Your task to perform on an android device: make emails show in primary in the gmail app Image 0: 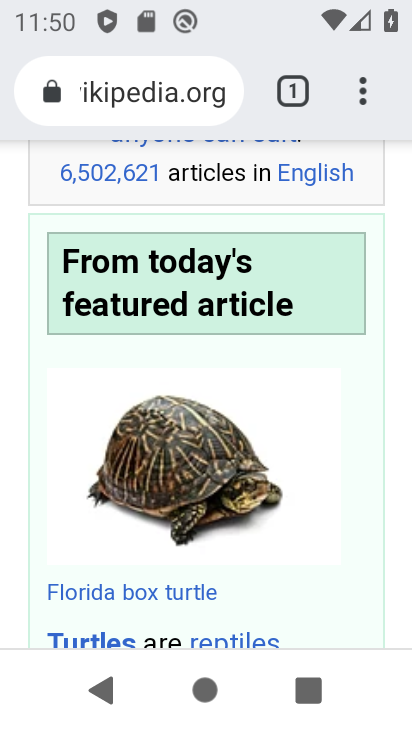
Step 0: press home button
Your task to perform on an android device: make emails show in primary in the gmail app Image 1: 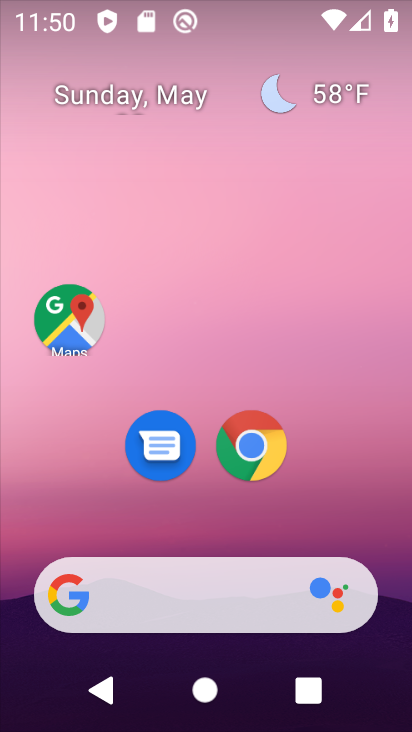
Step 1: drag from (191, 531) to (214, 92)
Your task to perform on an android device: make emails show in primary in the gmail app Image 2: 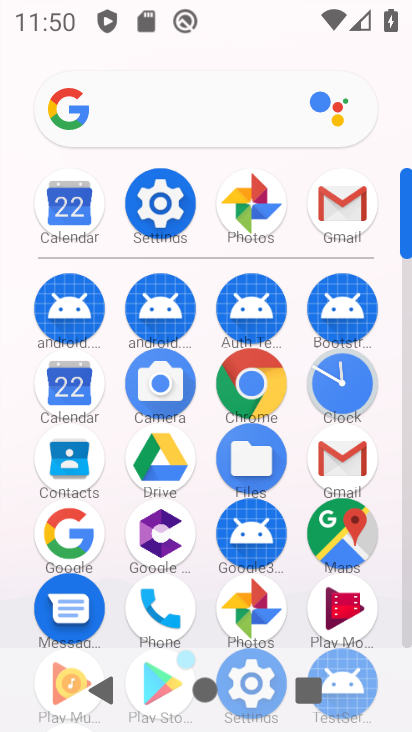
Step 2: click (346, 457)
Your task to perform on an android device: make emails show in primary in the gmail app Image 3: 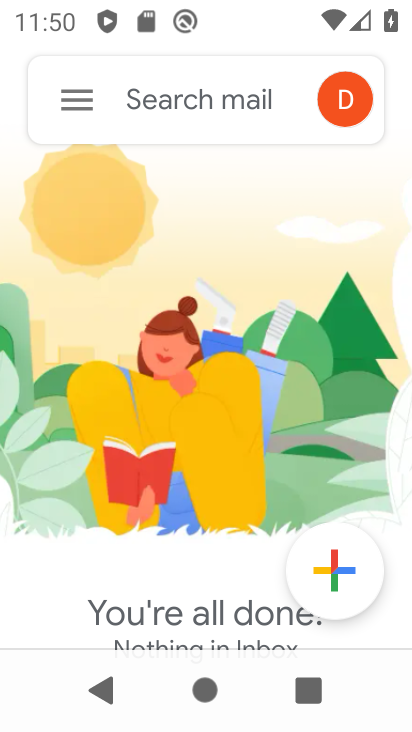
Step 3: click (76, 97)
Your task to perform on an android device: make emails show in primary in the gmail app Image 4: 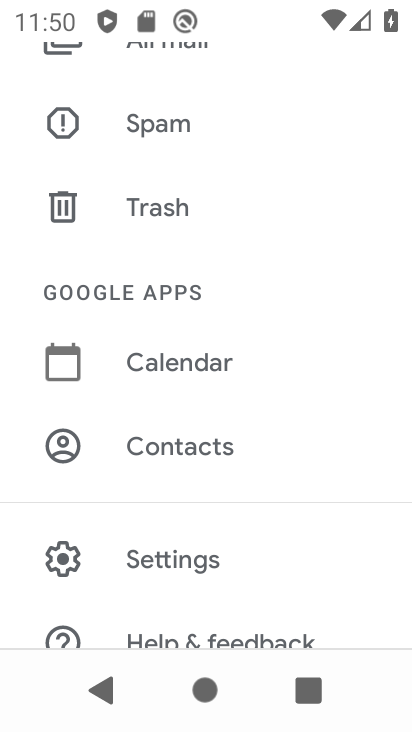
Step 4: drag from (184, 169) to (240, 30)
Your task to perform on an android device: make emails show in primary in the gmail app Image 5: 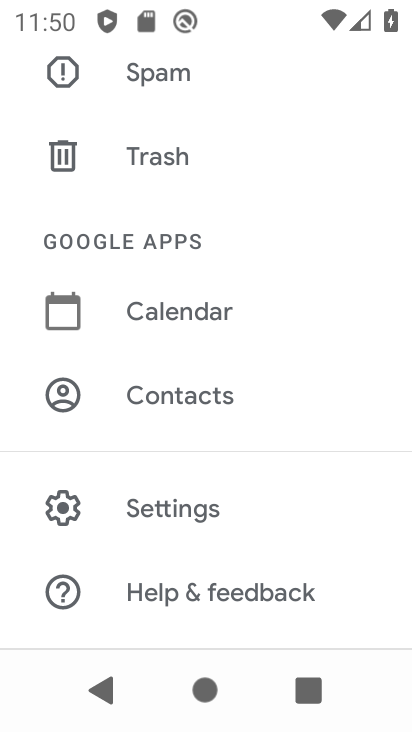
Step 5: click (238, 500)
Your task to perform on an android device: make emails show in primary in the gmail app Image 6: 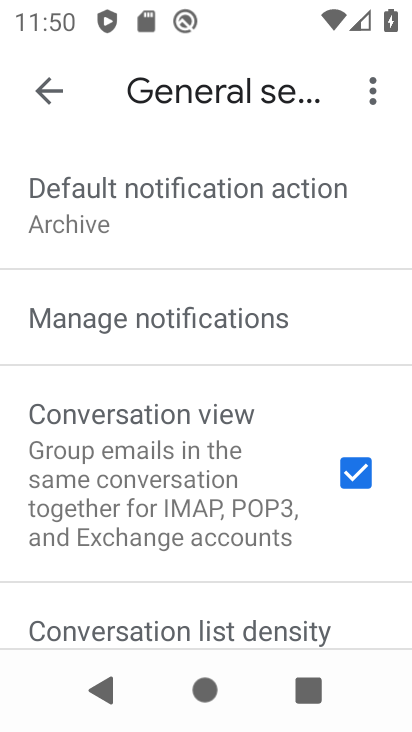
Step 6: click (62, 97)
Your task to perform on an android device: make emails show in primary in the gmail app Image 7: 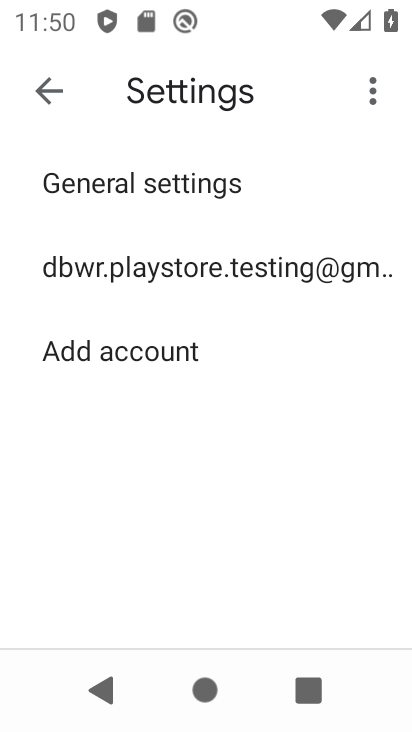
Step 7: click (225, 265)
Your task to perform on an android device: make emails show in primary in the gmail app Image 8: 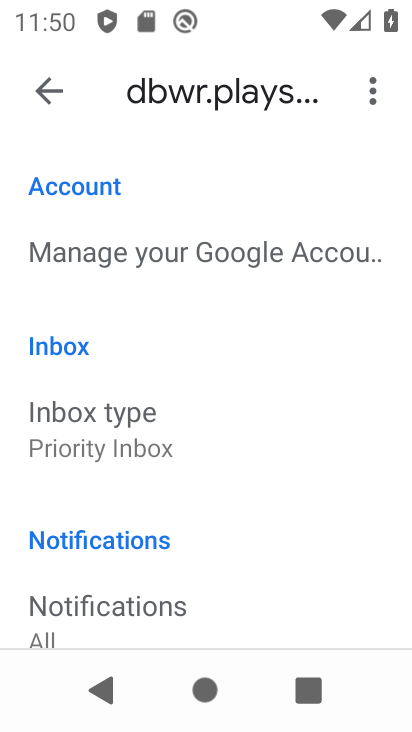
Step 8: click (213, 430)
Your task to perform on an android device: make emails show in primary in the gmail app Image 9: 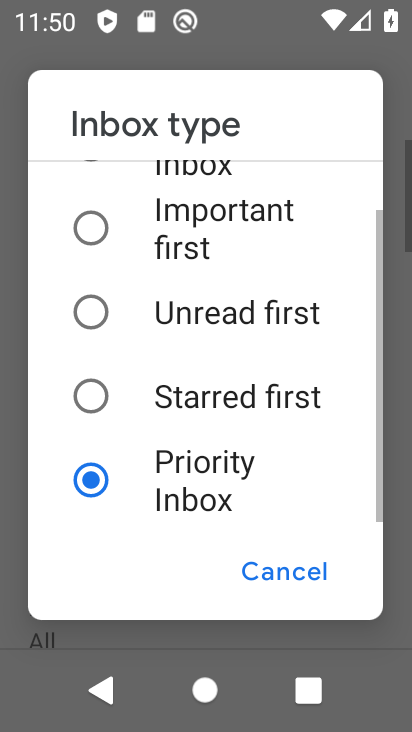
Step 9: drag from (108, 202) to (139, 495)
Your task to perform on an android device: make emails show in primary in the gmail app Image 10: 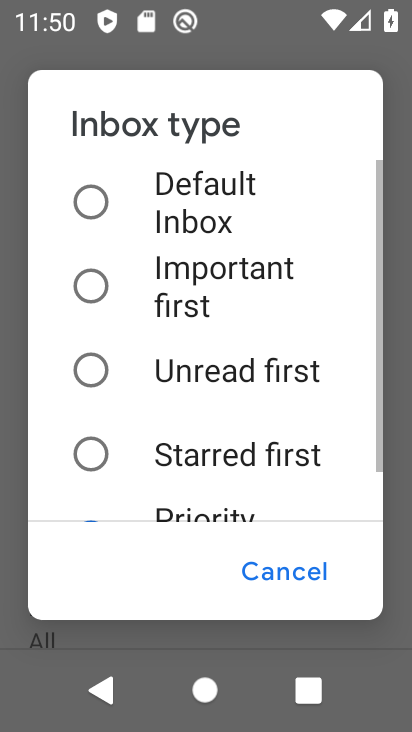
Step 10: click (99, 196)
Your task to perform on an android device: make emails show in primary in the gmail app Image 11: 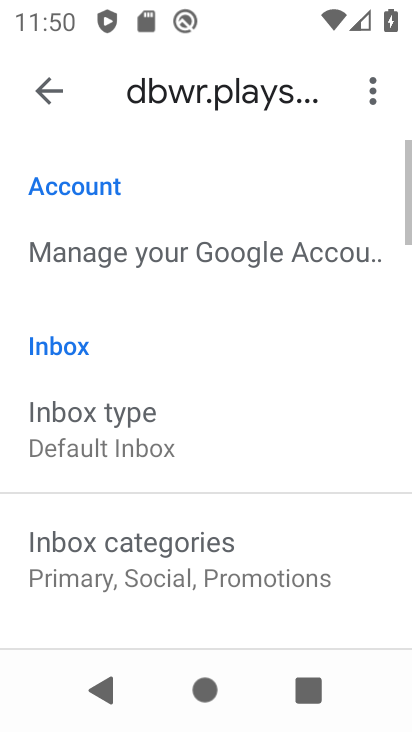
Step 11: task complete